Your task to perform on an android device: add a contact Image 0: 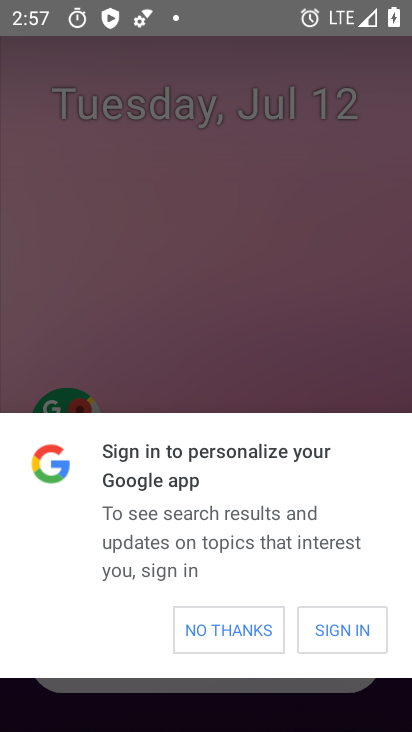
Step 0: press home button
Your task to perform on an android device: add a contact Image 1: 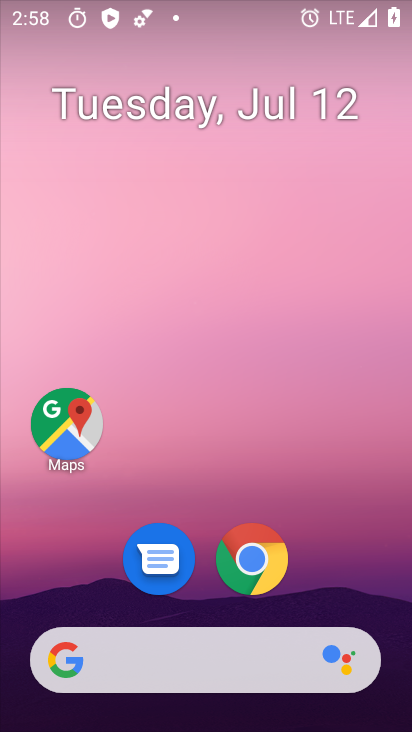
Step 1: drag from (369, 584) to (379, 194)
Your task to perform on an android device: add a contact Image 2: 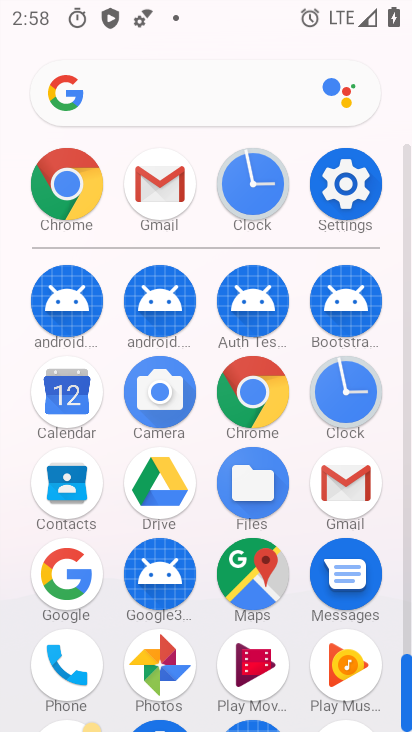
Step 2: click (71, 485)
Your task to perform on an android device: add a contact Image 3: 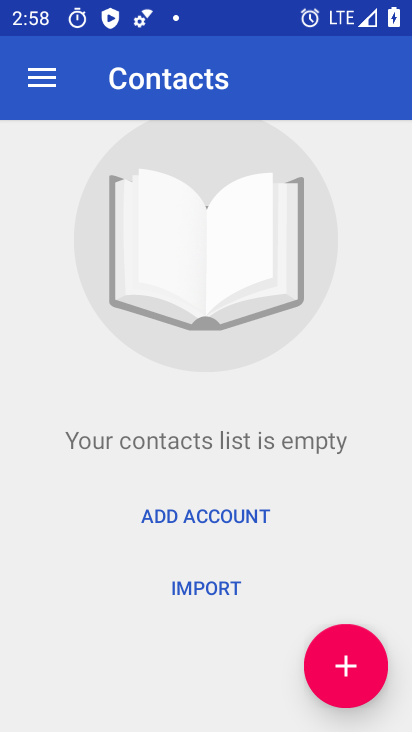
Step 3: click (340, 654)
Your task to perform on an android device: add a contact Image 4: 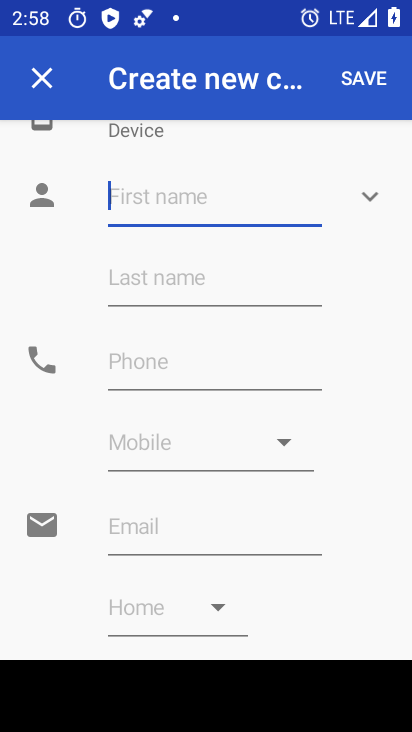
Step 4: type ""
Your task to perform on an android device: add a contact Image 5: 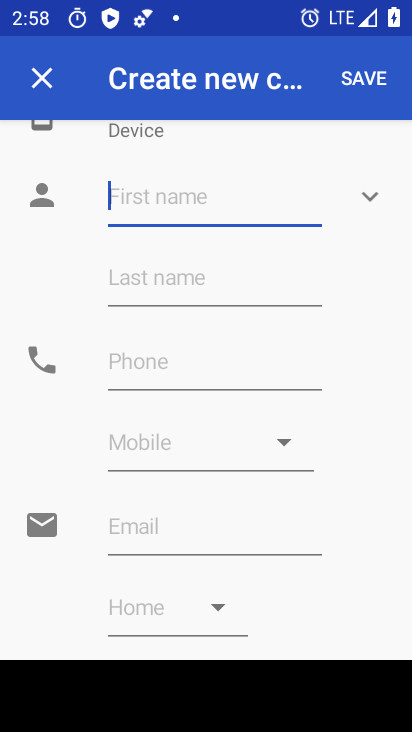
Step 5: type "fav"
Your task to perform on an android device: add a contact Image 6: 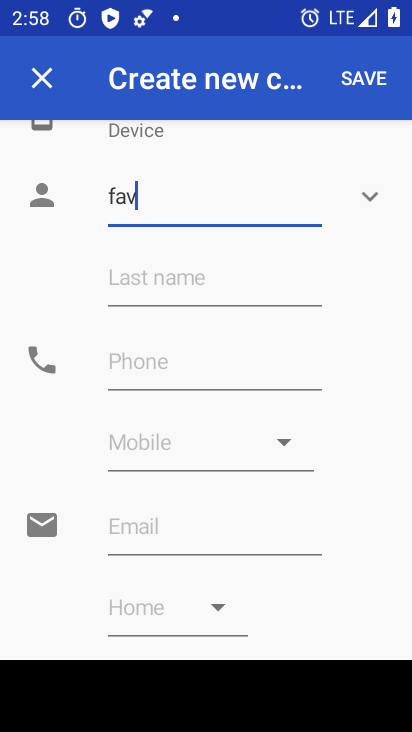
Step 6: click (221, 375)
Your task to perform on an android device: add a contact Image 7: 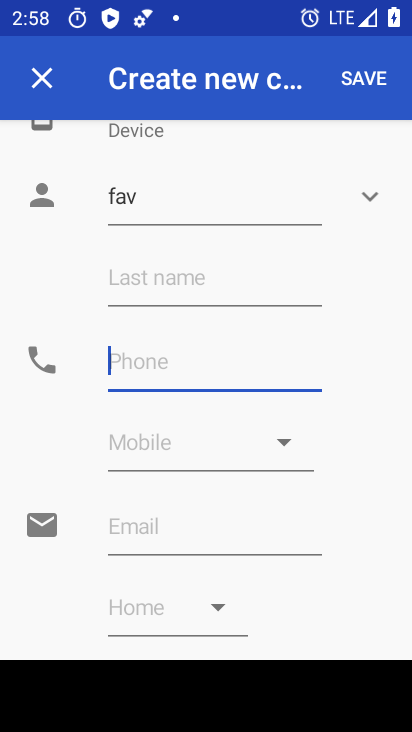
Step 7: type "1234567890"
Your task to perform on an android device: add a contact Image 8: 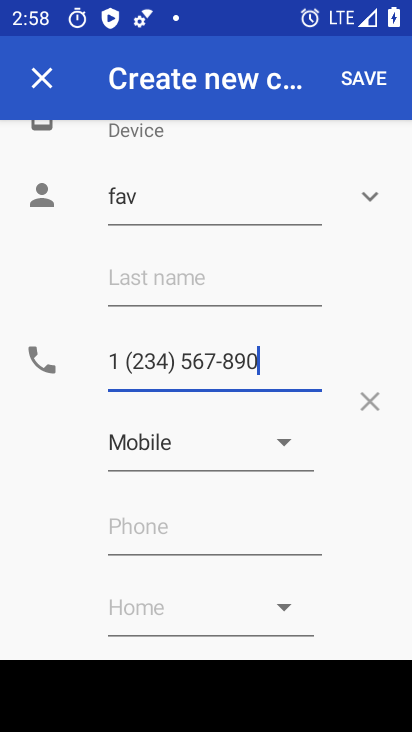
Step 8: click (376, 87)
Your task to perform on an android device: add a contact Image 9: 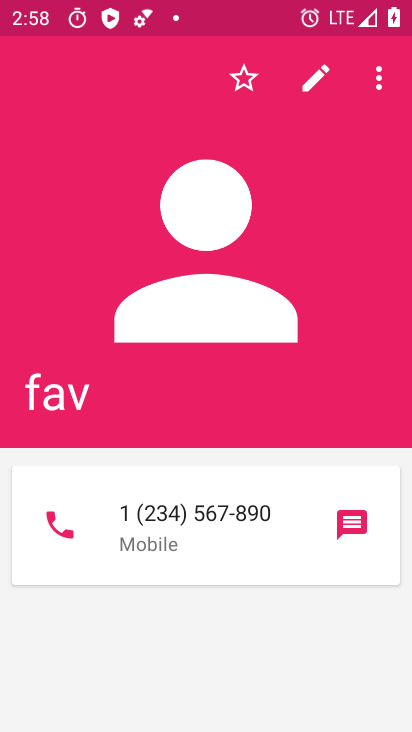
Step 9: task complete